Your task to perform on an android device: turn off improve location accuracy Image 0: 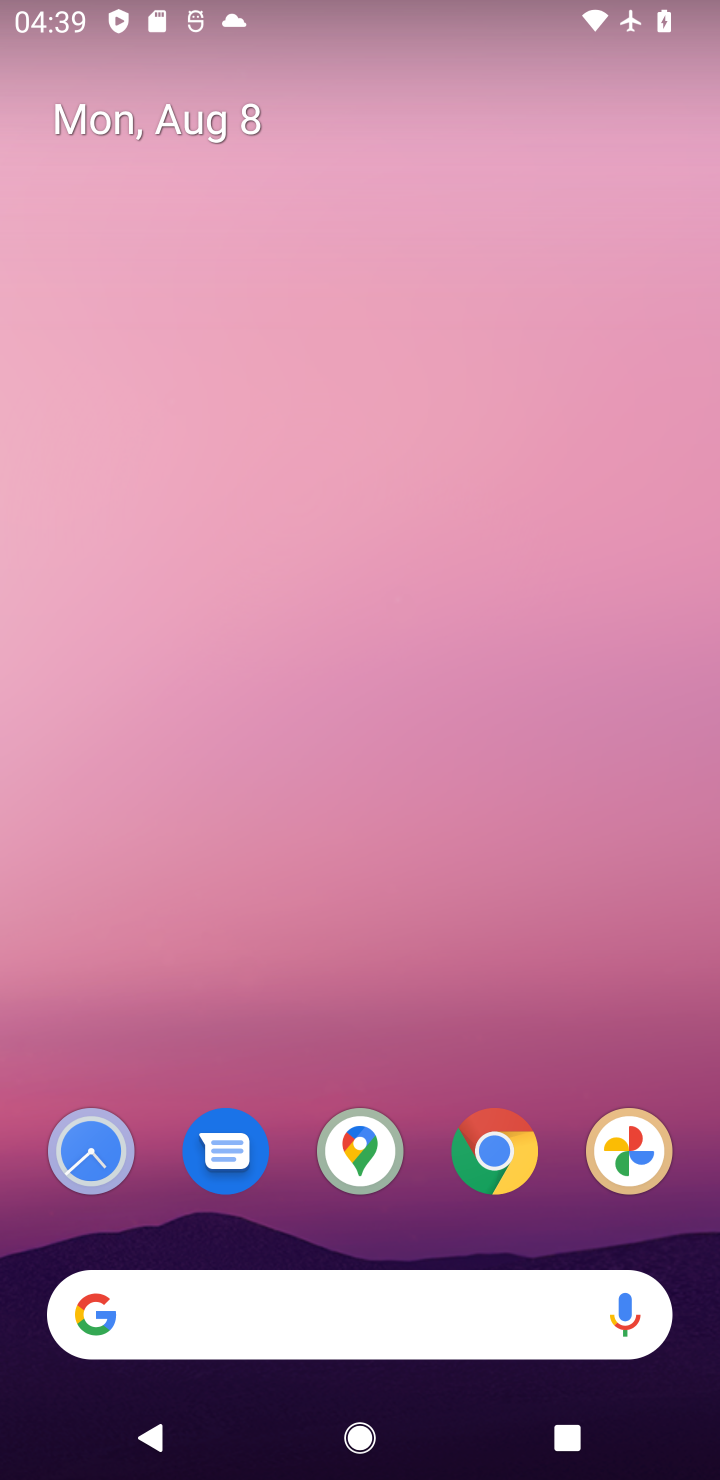
Step 0: drag from (351, 934) to (379, 164)
Your task to perform on an android device: turn off improve location accuracy Image 1: 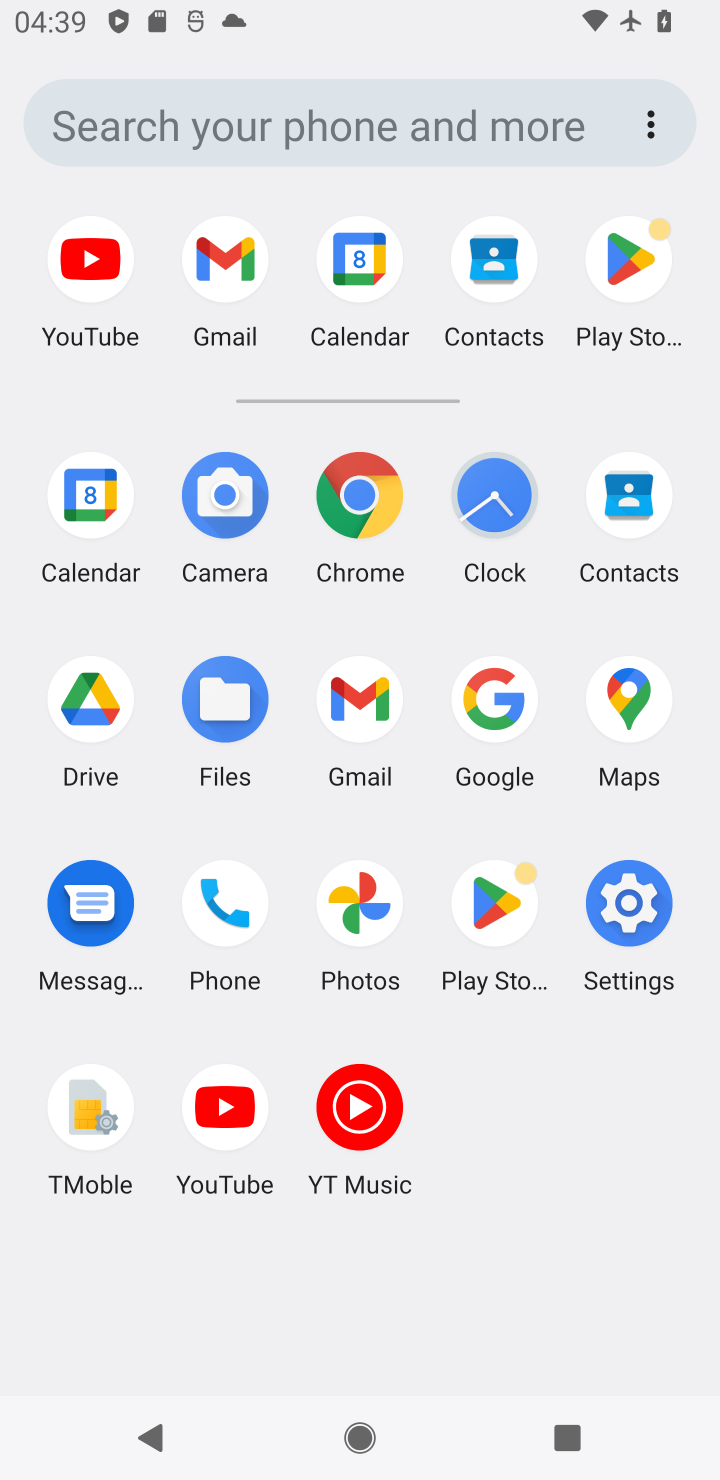
Step 1: click (613, 879)
Your task to perform on an android device: turn off improve location accuracy Image 2: 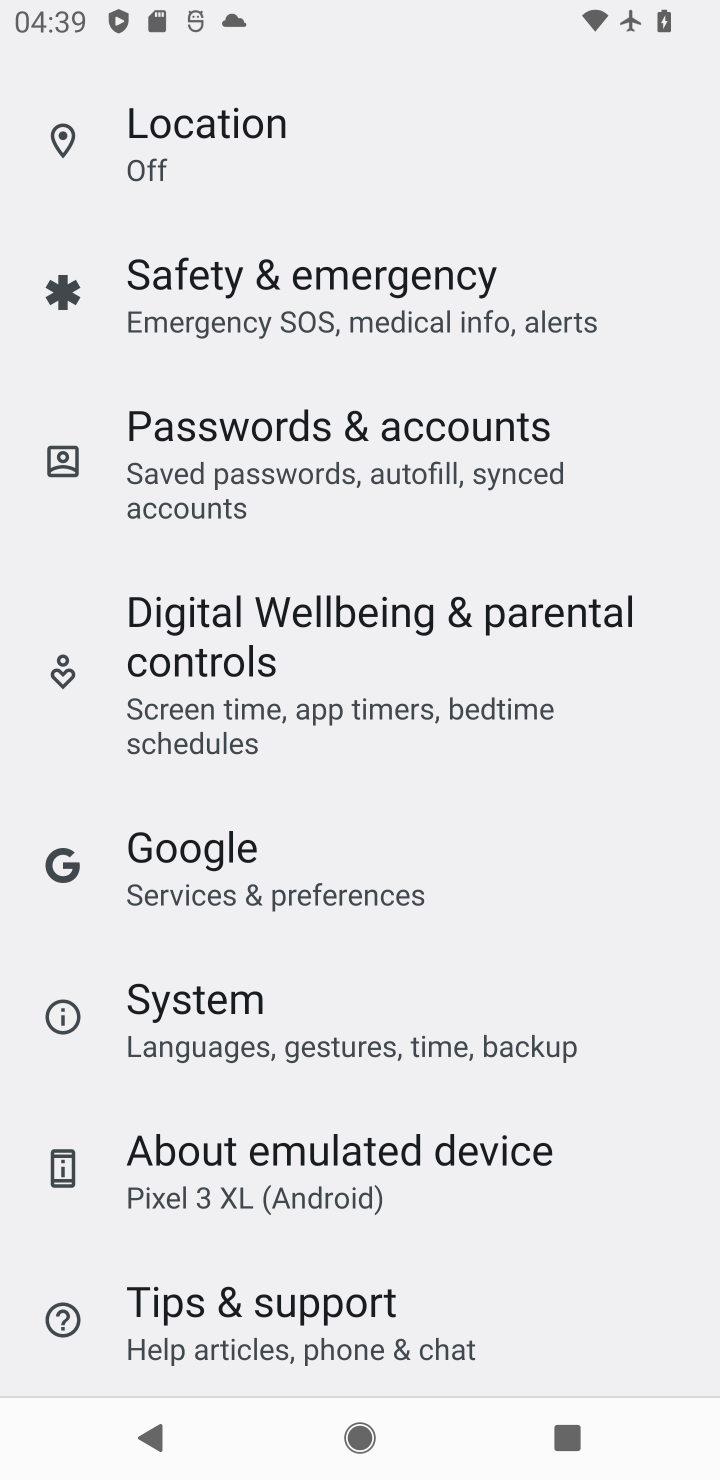
Step 2: click (233, 167)
Your task to perform on an android device: turn off improve location accuracy Image 3: 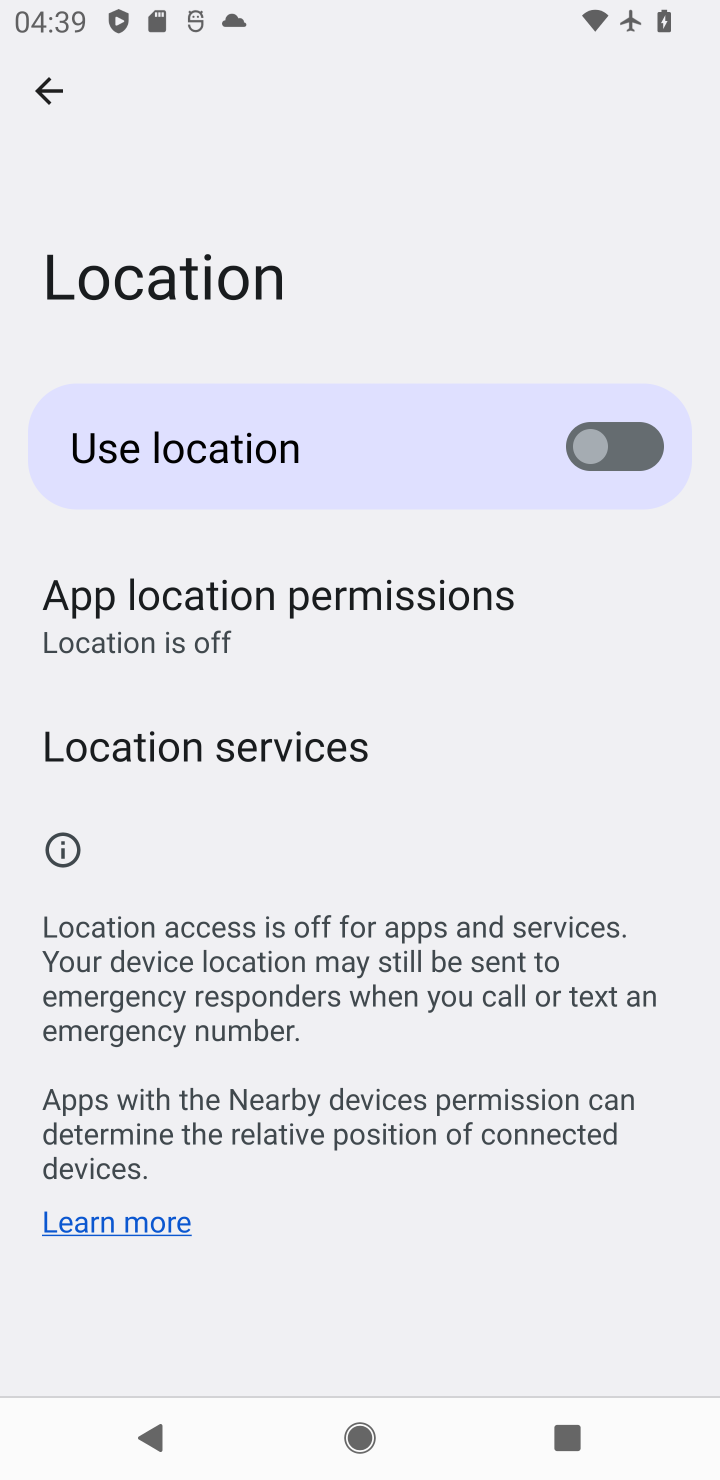
Step 3: click (294, 753)
Your task to perform on an android device: turn off improve location accuracy Image 4: 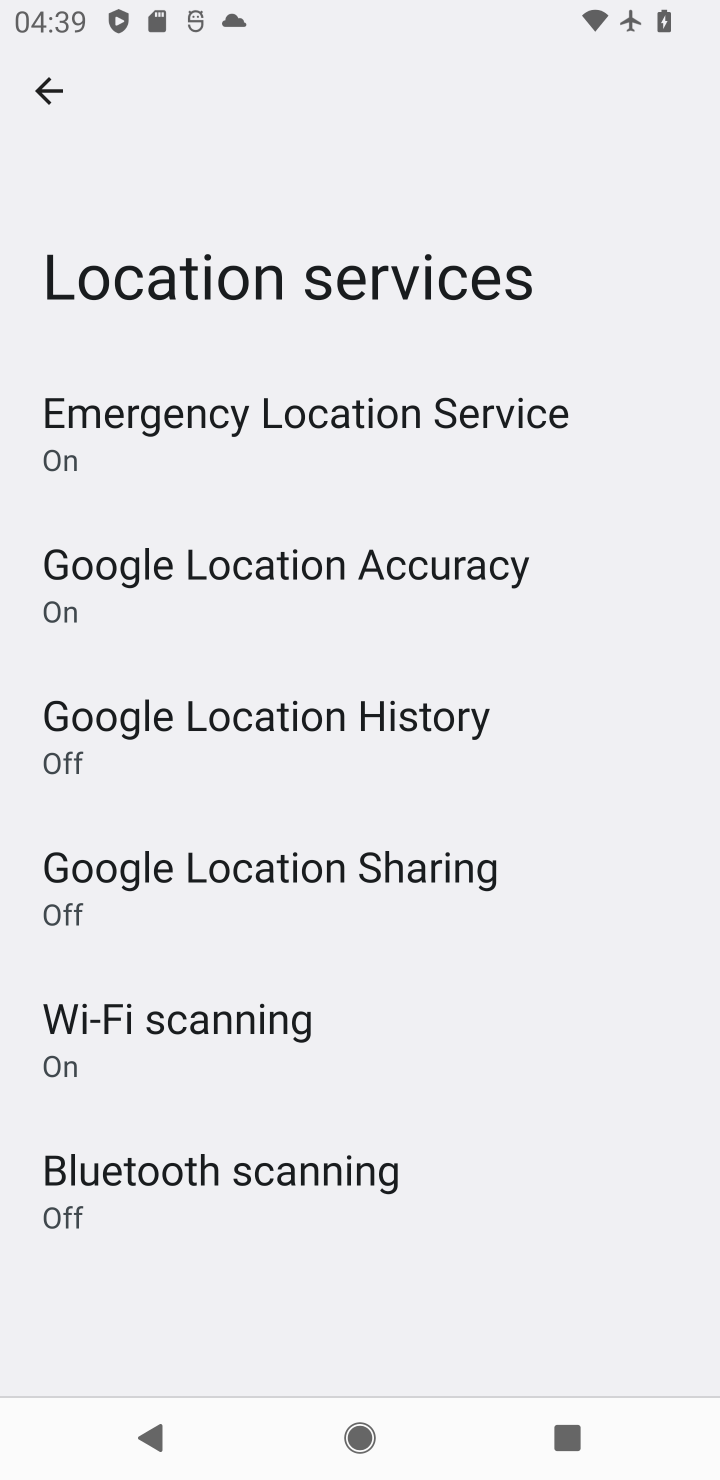
Step 4: click (290, 611)
Your task to perform on an android device: turn off improve location accuracy Image 5: 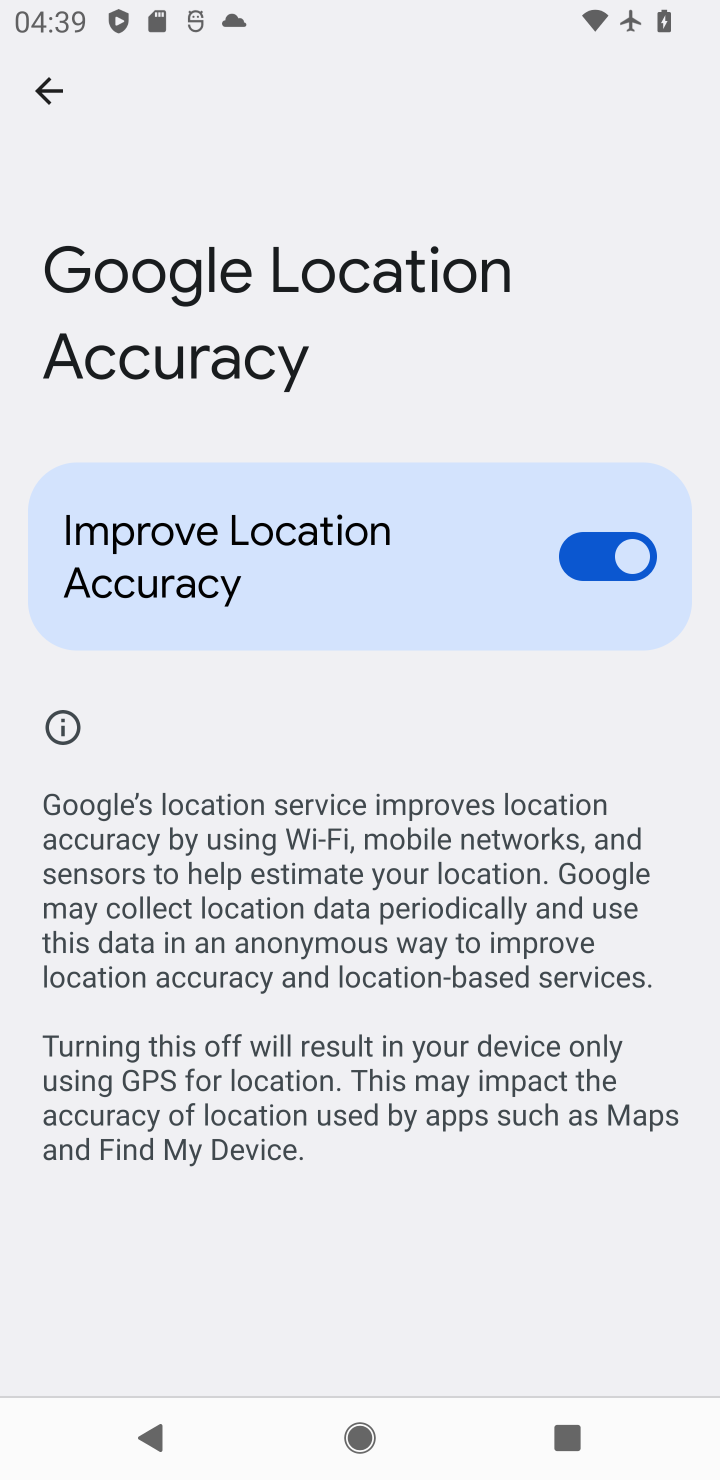
Step 5: click (589, 567)
Your task to perform on an android device: turn off improve location accuracy Image 6: 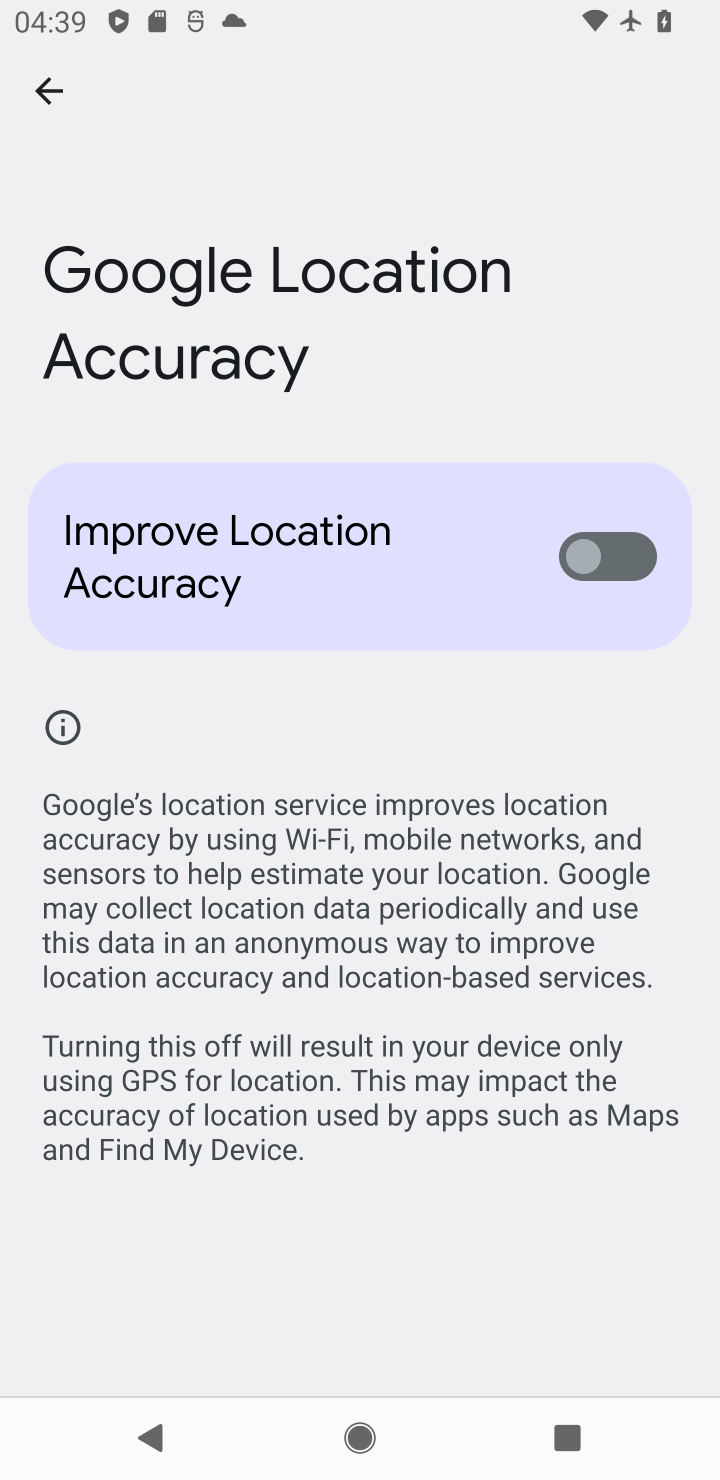
Step 6: task complete